Your task to perform on an android device: What's on my calendar tomorrow? Image 0: 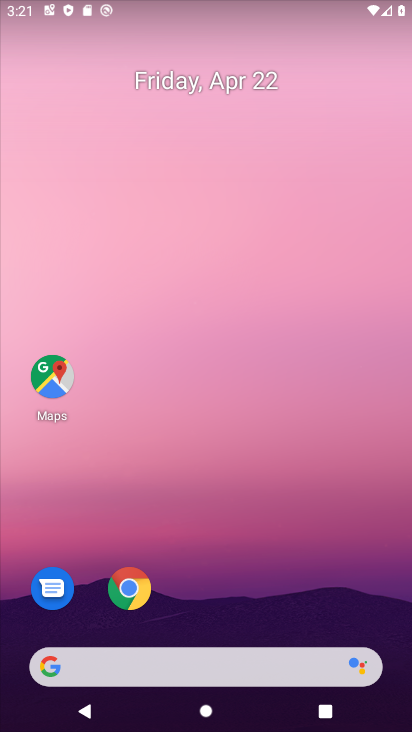
Step 0: drag from (227, 557) to (322, 24)
Your task to perform on an android device: What's on my calendar tomorrow? Image 1: 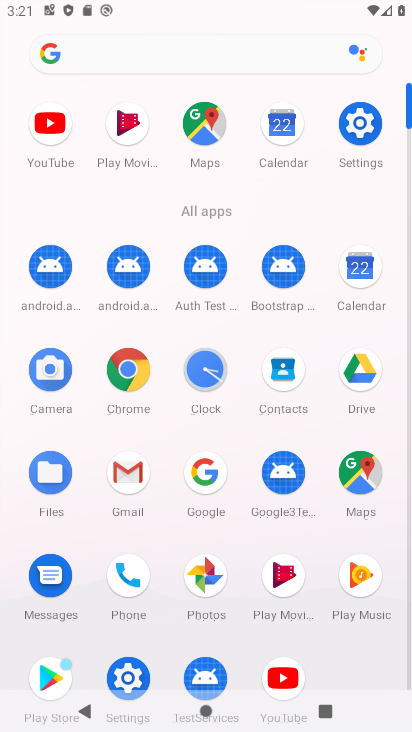
Step 1: click (360, 270)
Your task to perform on an android device: What's on my calendar tomorrow? Image 2: 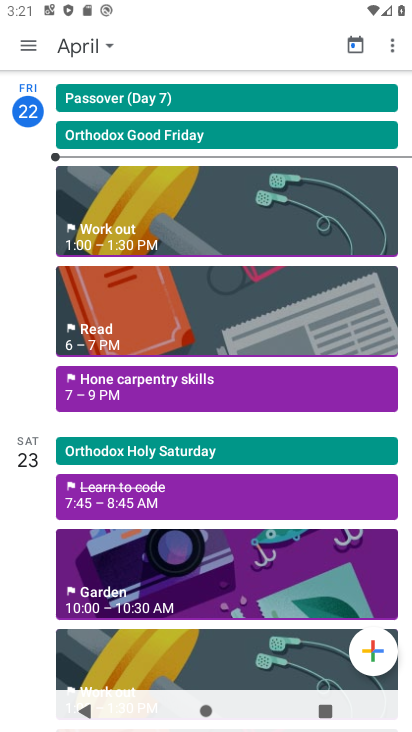
Step 2: drag from (189, 544) to (249, 172)
Your task to perform on an android device: What's on my calendar tomorrow? Image 3: 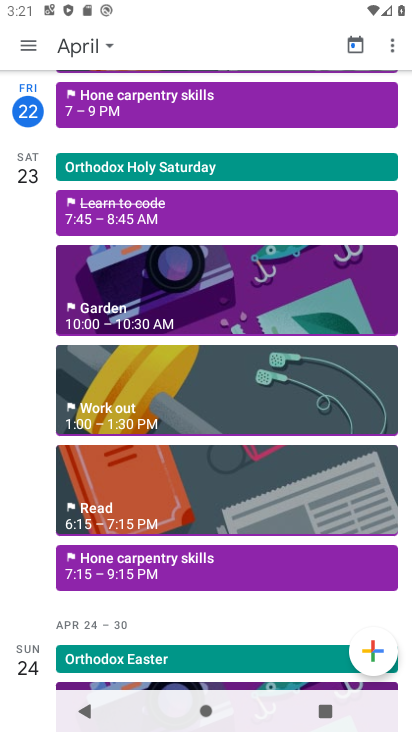
Step 3: click (32, 174)
Your task to perform on an android device: What's on my calendar tomorrow? Image 4: 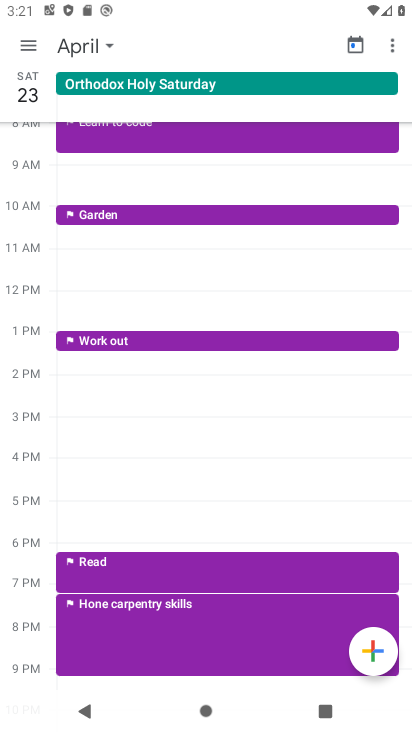
Step 4: task complete